Your task to perform on an android device: turn on the 24-hour format for clock Image 0: 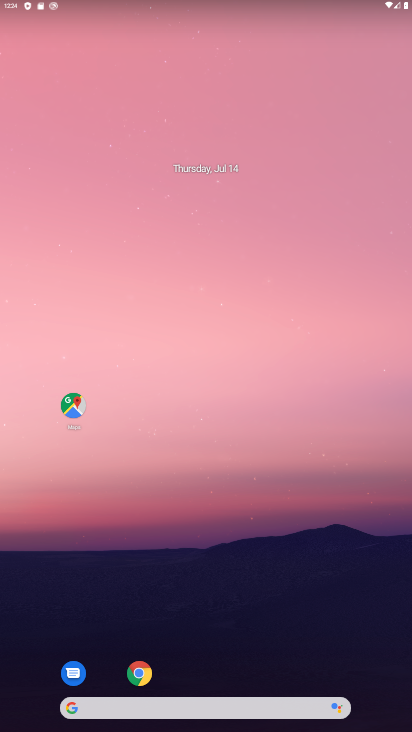
Step 0: drag from (233, 638) to (184, 257)
Your task to perform on an android device: turn on the 24-hour format for clock Image 1: 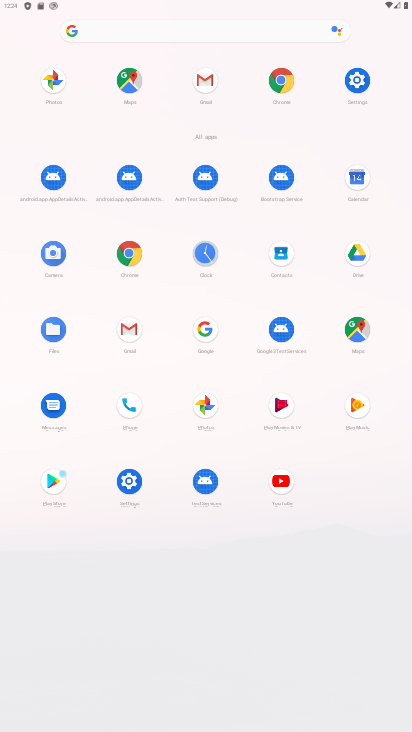
Step 1: click (207, 265)
Your task to perform on an android device: turn on the 24-hour format for clock Image 2: 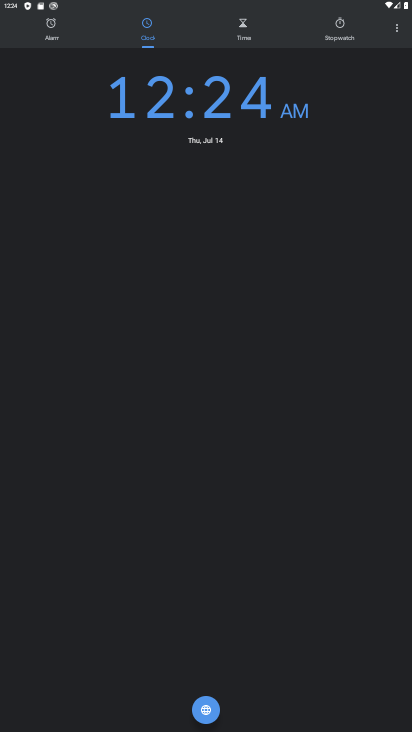
Step 2: click (397, 42)
Your task to perform on an android device: turn on the 24-hour format for clock Image 3: 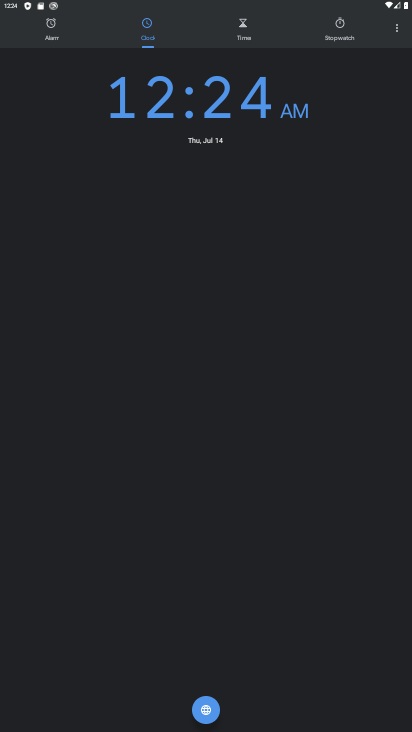
Step 3: click (396, 29)
Your task to perform on an android device: turn on the 24-hour format for clock Image 4: 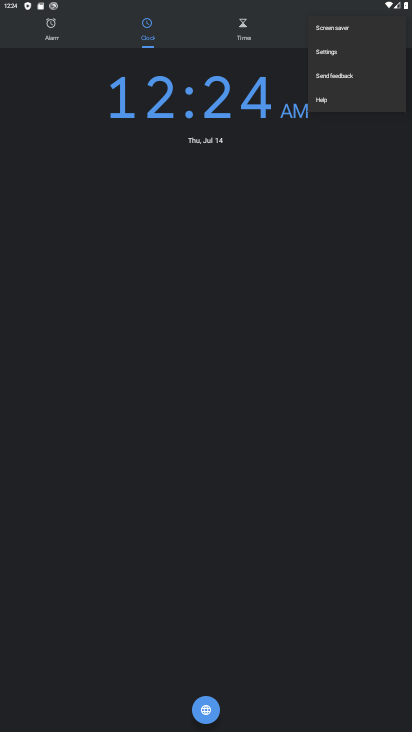
Step 4: click (346, 56)
Your task to perform on an android device: turn on the 24-hour format for clock Image 5: 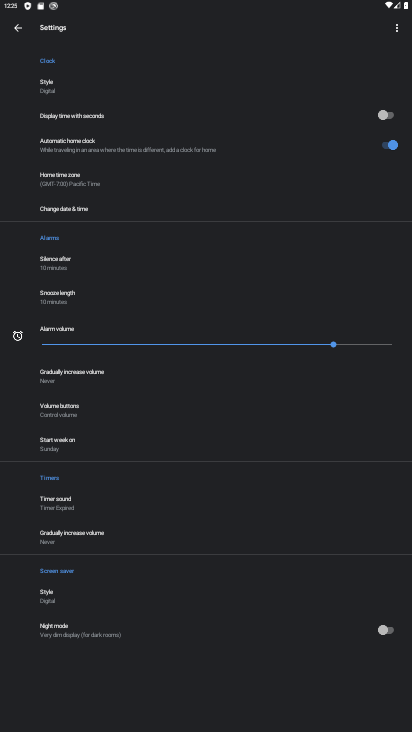
Step 5: click (82, 216)
Your task to perform on an android device: turn on the 24-hour format for clock Image 6: 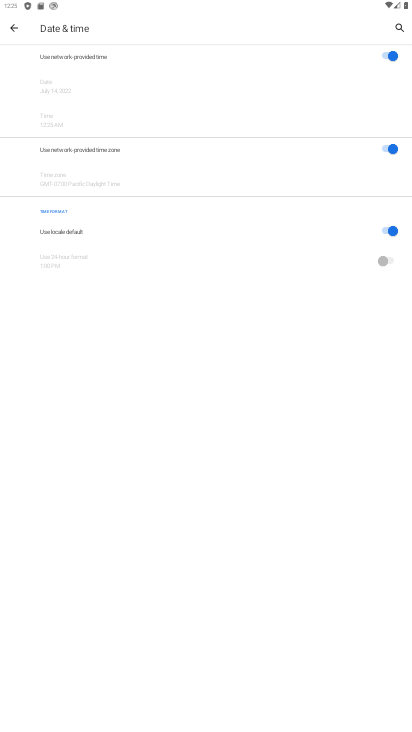
Step 6: click (371, 232)
Your task to perform on an android device: turn on the 24-hour format for clock Image 7: 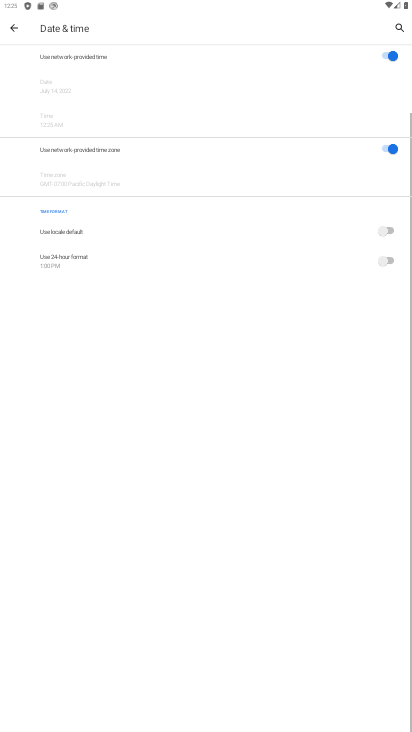
Step 7: click (398, 263)
Your task to perform on an android device: turn on the 24-hour format for clock Image 8: 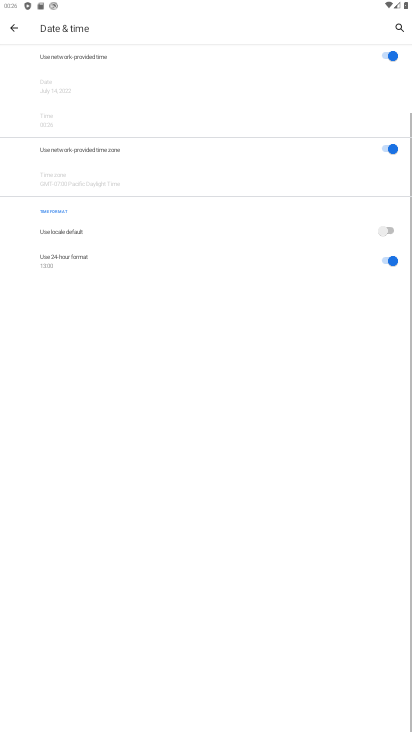
Step 8: task complete